Your task to perform on an android device: Open Yahoo.com Image 0: 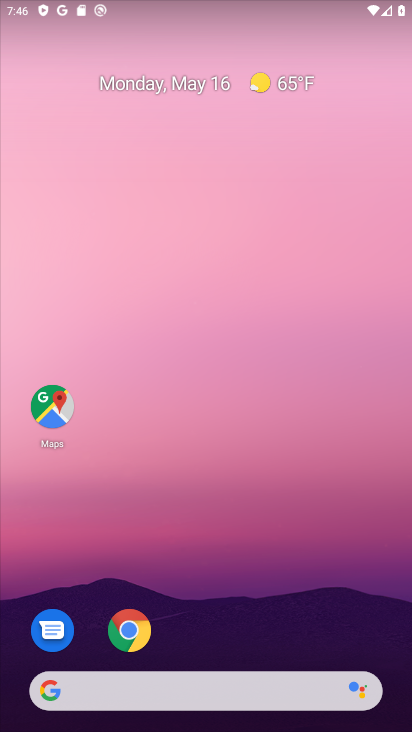
Step 0: click (140, 631)
Your task to perform on an android device: Open Yahoo.com Image 1: 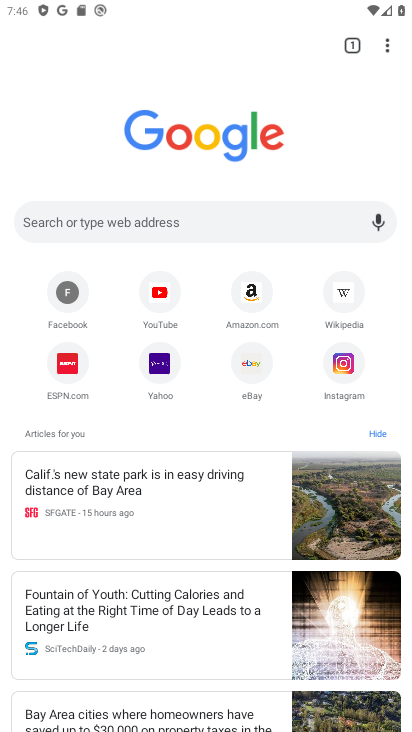
Step 1: click (151, 370)
Your task to perform on an android device: Open Yahoo.com Image 2: 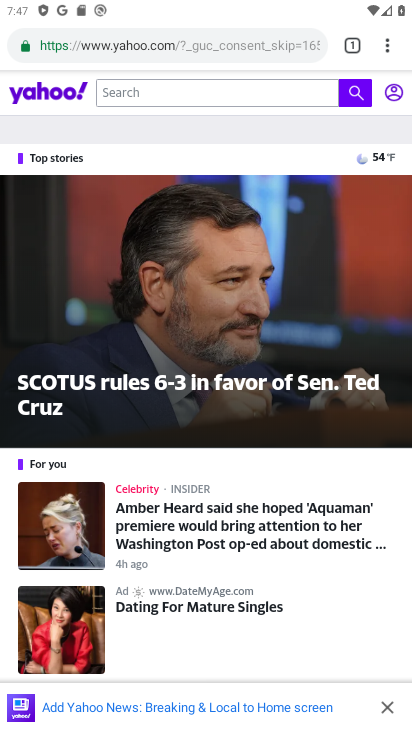
Step 2: task complete